Your task to perform on an android device: What is the news today? Image 0: 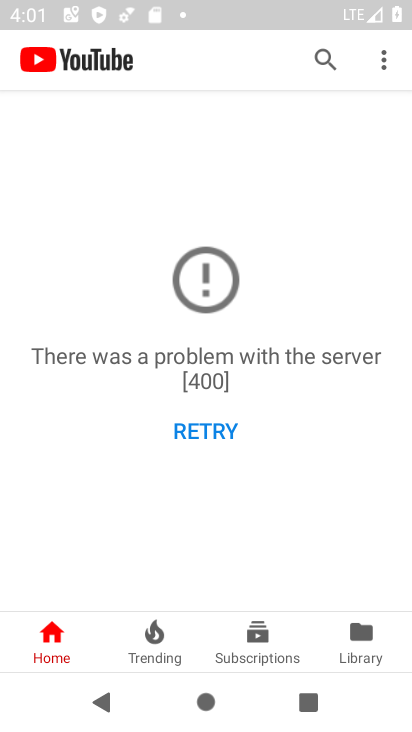
Step 0: press home button
Your task to perform on an android device: What is the news today? Image 1: 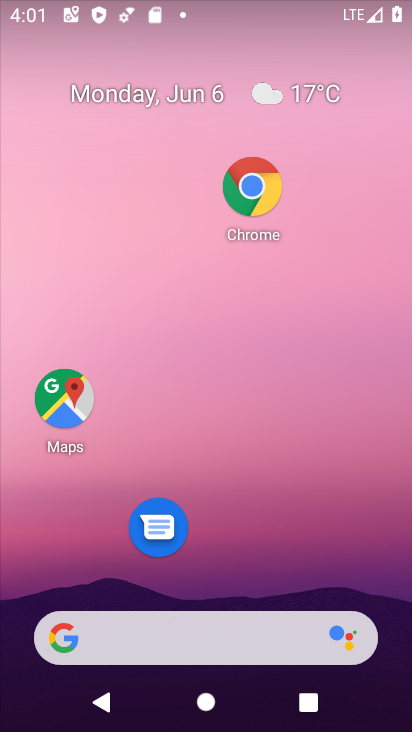
Step 1: drag from (209, 520) to (200, 197)
Your task to perform on an android device: What is the news today? Image 2: 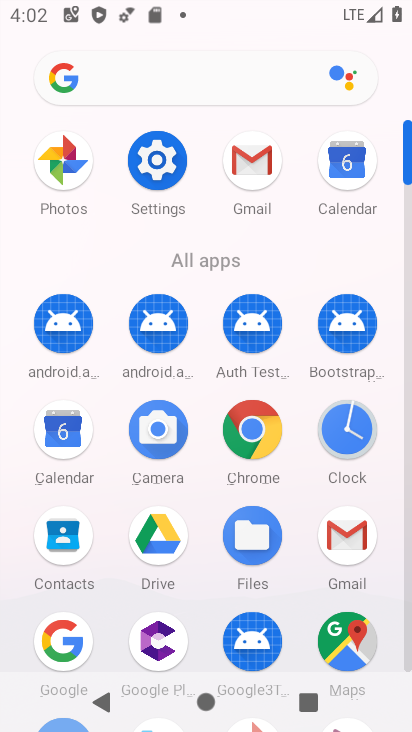
Step 2: click (61, 661)
Your task to perform on an android device: What is the news today? Image 3: 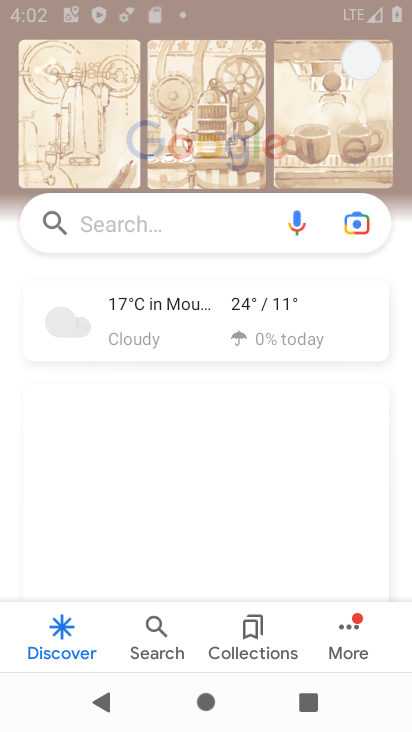
Step 3: click (109, 228)
Your task to perform on an android device: What is the news today? Image 4: 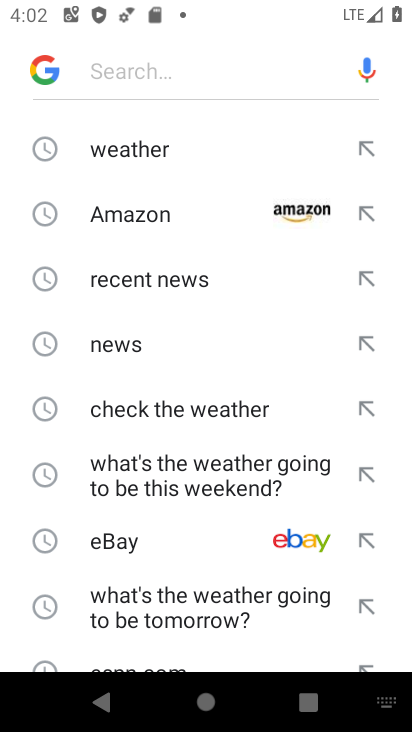
Step 4: drag from (135, 603) to (122, 359)
Your task to perform on an android device: What is the news today? Image 5: 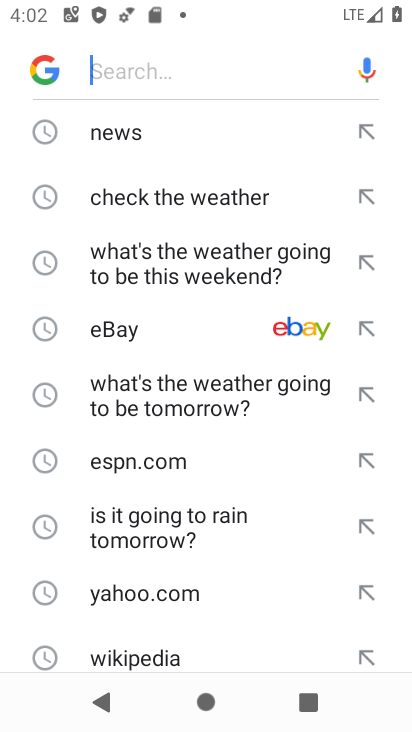
Step 5: drag from (153, 651) to (164, 212)
Your task to perform on an android device: What is the news today? Image 6: 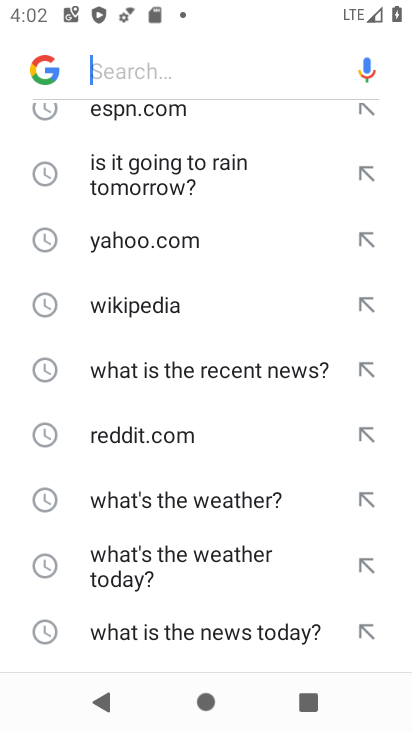
Step 6: click (167, 631)
Your task to perform on an android device: What is the news today? Image 7: 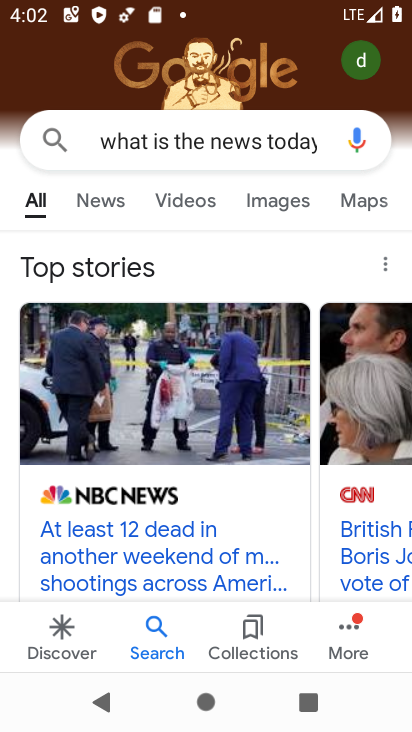
Step 7: task complete